Your task to perform on an android device: Open network settings Image 0: 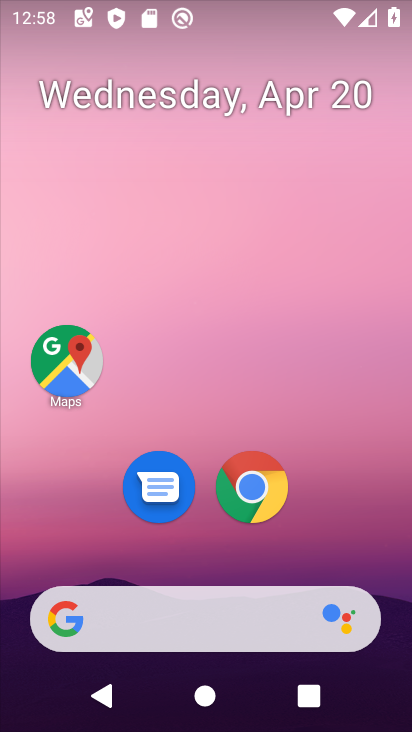
Step 0: drag from (367, 530) to (219, 33)
Your task to perform on an android device: Open network settings Image 1: 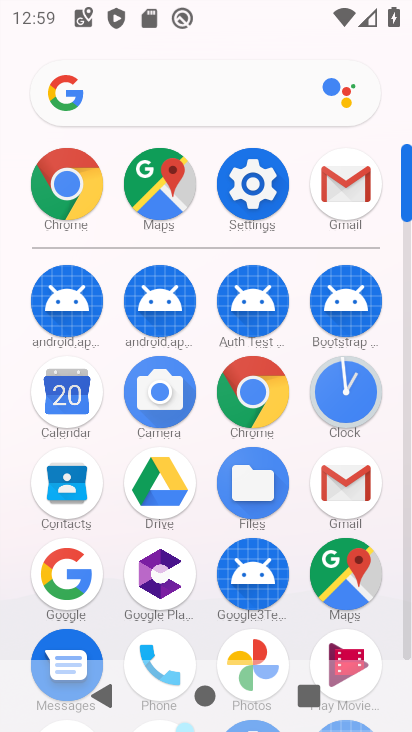
Step 1: click (249, 202)
Your task to perform on an android device: Open network settings Image 2: 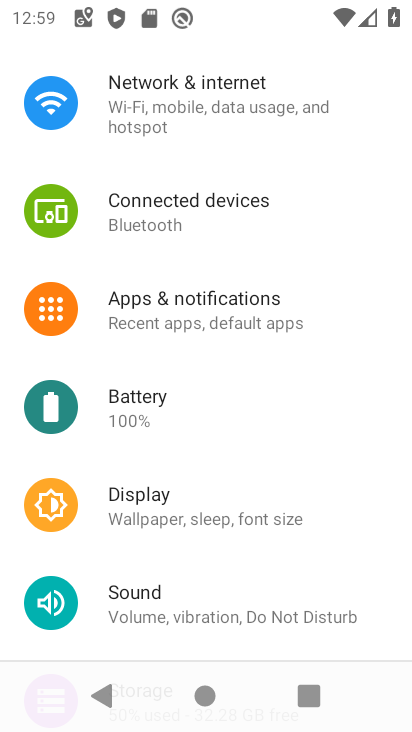
Step 2: click (223, 118)
Your task to perform on an android device: Open network settings Image 3: 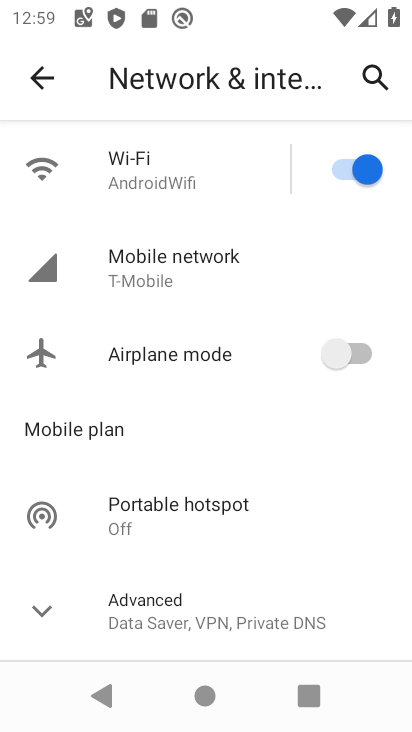
Step 3: click (161, 167)
Your task to perform on an android device: Open network settings Image 4: 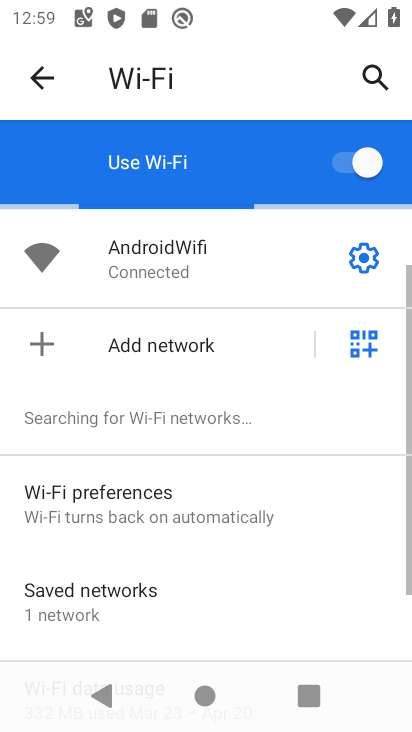
Step 4: task complete